Your task to perform on an android device: change the clock display to analog Image 0: 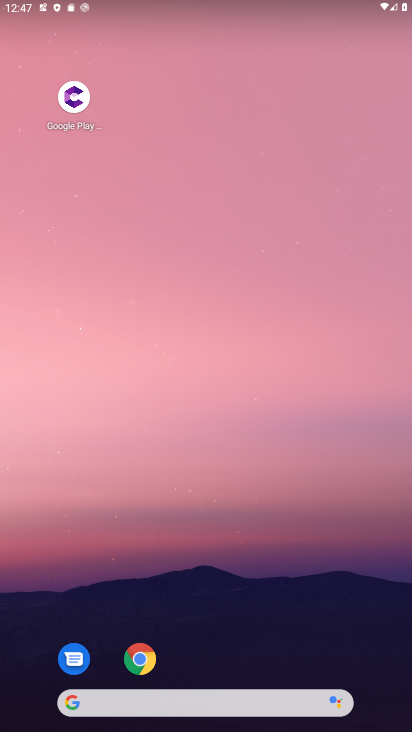
Step 0: drag from (202, 665) to (236, 171)
Your task to perform on an android device: change the clock display to analog Image 1: 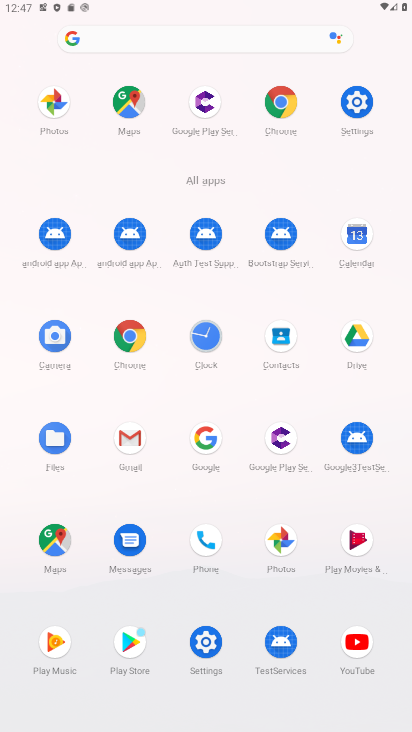
Step 1: click (210, 334)
Your task to perform on an android device: change the clock display to analog Image 2: 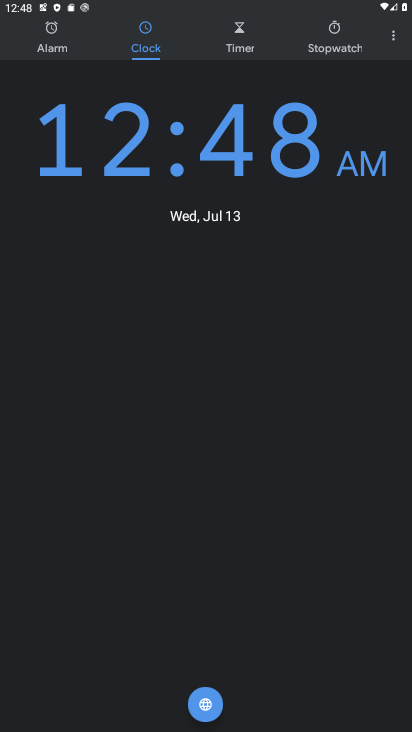
Step 2: click (388, 37)
Your task to perform on an android device: change the clock display to analog Image 3: 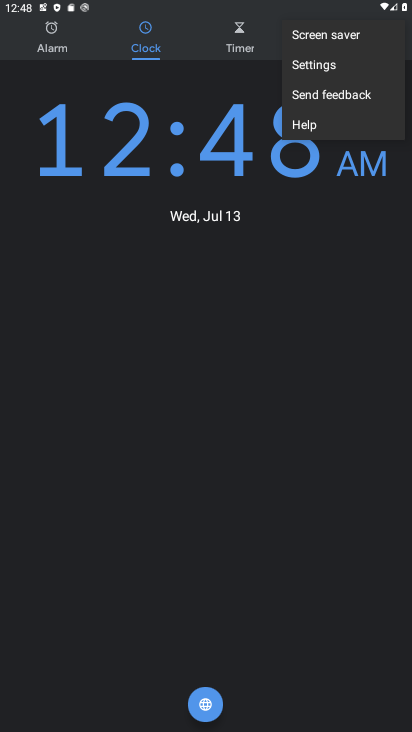
Step 3: click (329, 65)
Your task to perform on an android device: change the clock display to analog Image 4: 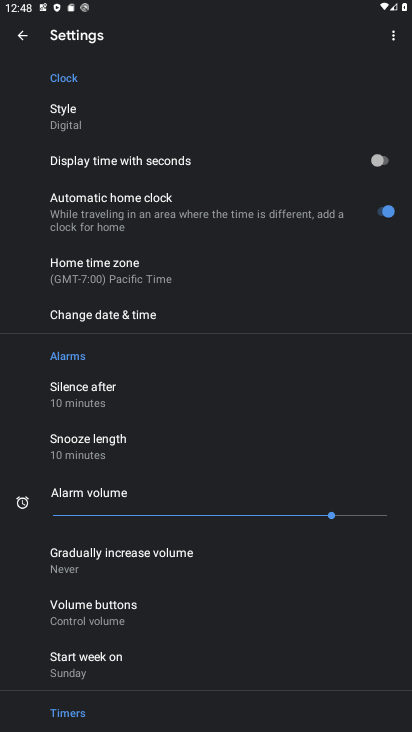
Step 4: drag from (185, 432) to (219, 162)
Your task to perform on an android device: change the clock display to analog Image 5: 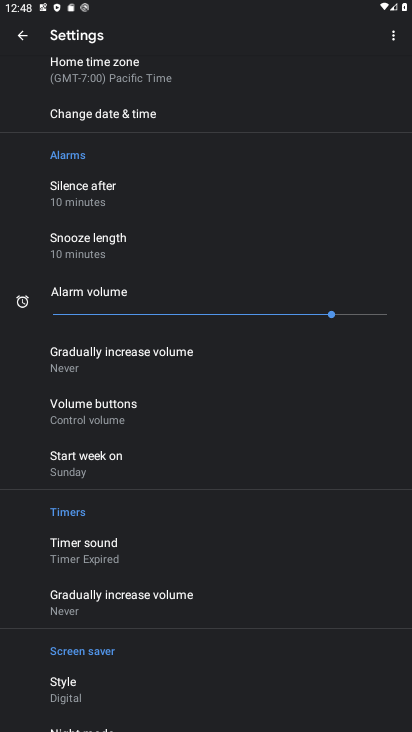
Step 5: drag from (187, 548) to (228, 258)
Your task to perform on an android device: change the clock display to analog Image 6: 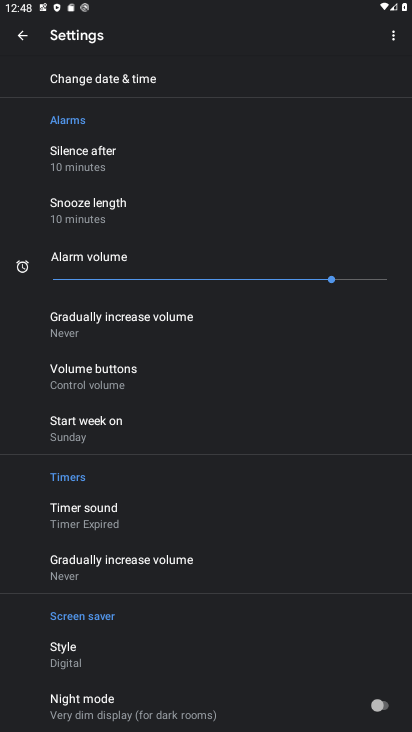
Step 6: drag from (217, 164) to (256, 636)
Your task to perform on an android device: change the clock display to analog Image 7: 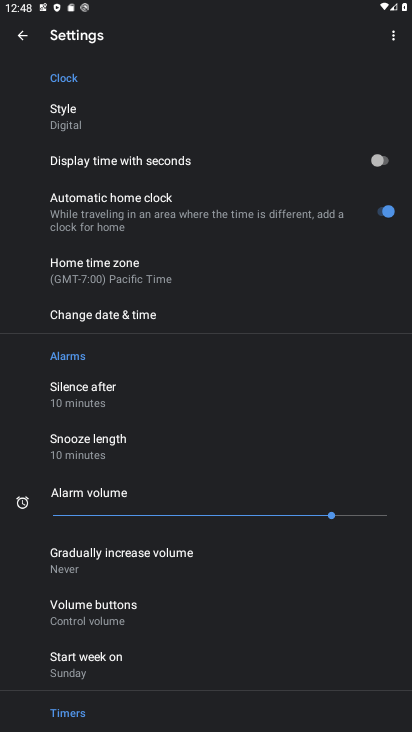
Step 7: drag from (187, 144) to (233, 668)
Your task to perform on an android device: change the clock display to analog Image 8: 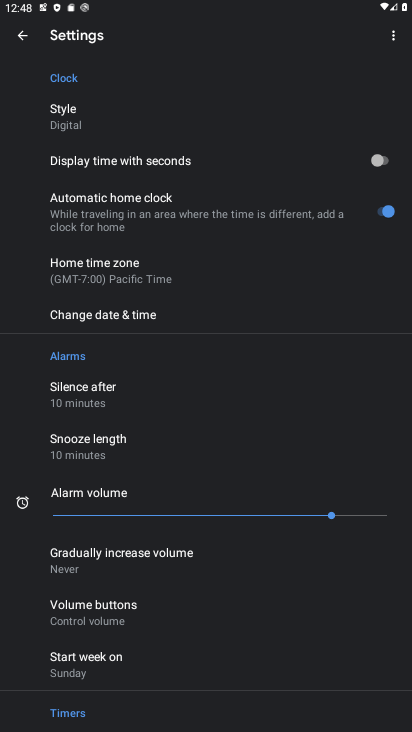
Step 8: click (84, 116)
Your task to perform on an android device: change the clock display to analog Image 9: 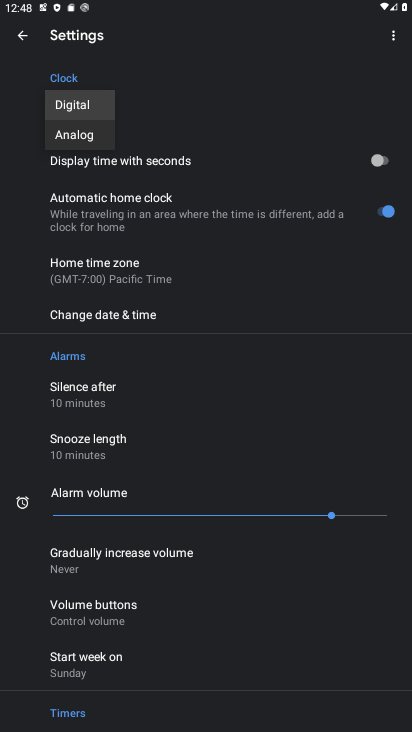
Step 9: click (96, 137)
Your task to perform on an android device: change the clock display to analog Image 10: 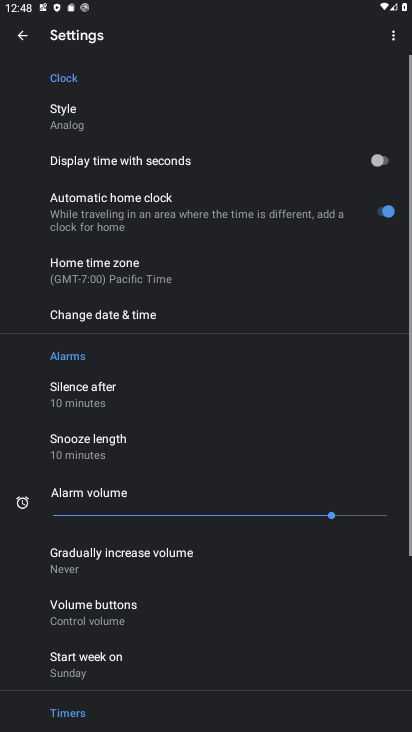
Step 10: task complete